Your task to perform on an android device: turn off priority inbox in the gmail app Image 0: 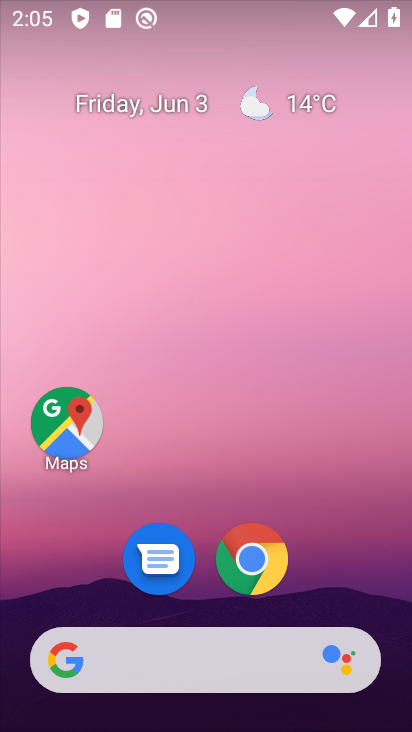
Step 0: drag from (236, 628) to (180, 17)
Your task to perform on an android device: turn off priority inbox in the gmail app Image 1: 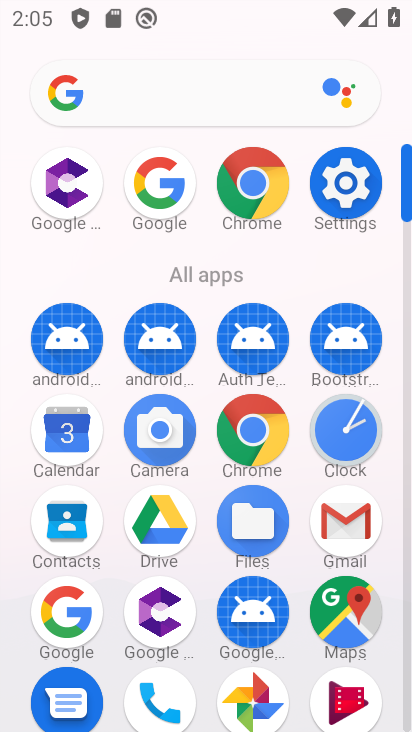
Step 1: click (343, 518)
Your task to perform on an android device: turn off priority inbox in the gmail app Image 2: 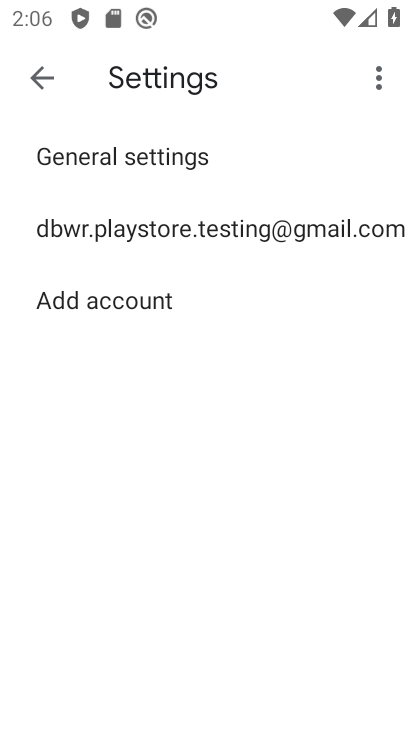
Step 2: click (45, 225)
Your task to perform on an android device: turn off priority inbox in the gmail app Image 3: 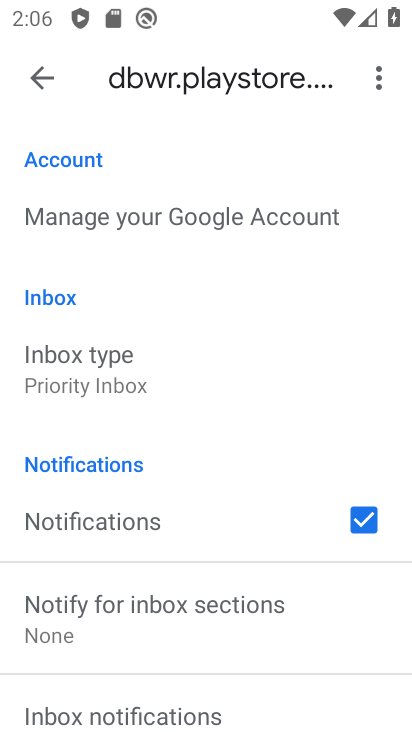
Step 3: click (111, 372)
Your task to perform on an android device: turn off priority inbox in the gmail app Image 4: 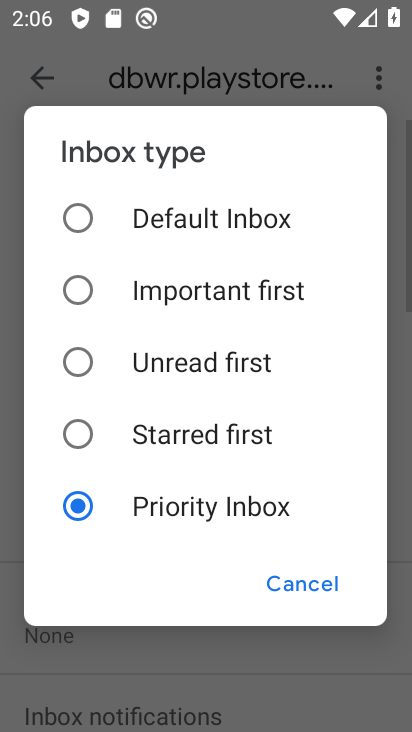
Step 4: click (153, 233)
Your task to perform on an android device: turn off priority inbox in the gmail app Image 5: 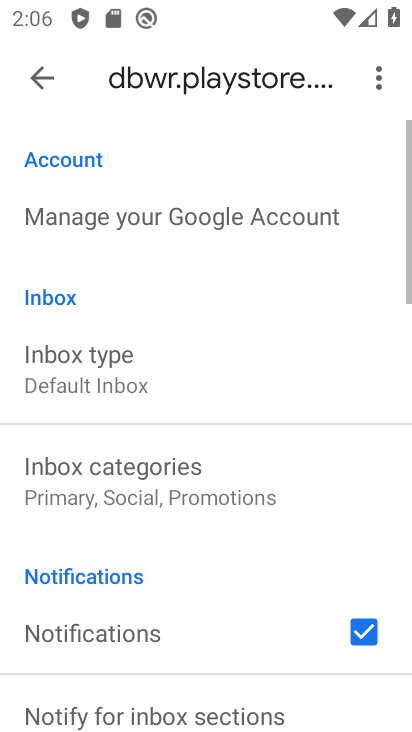
Step 5: task complete